Your task to perform on an android device: install app "Microsoft Excel" Image 0: 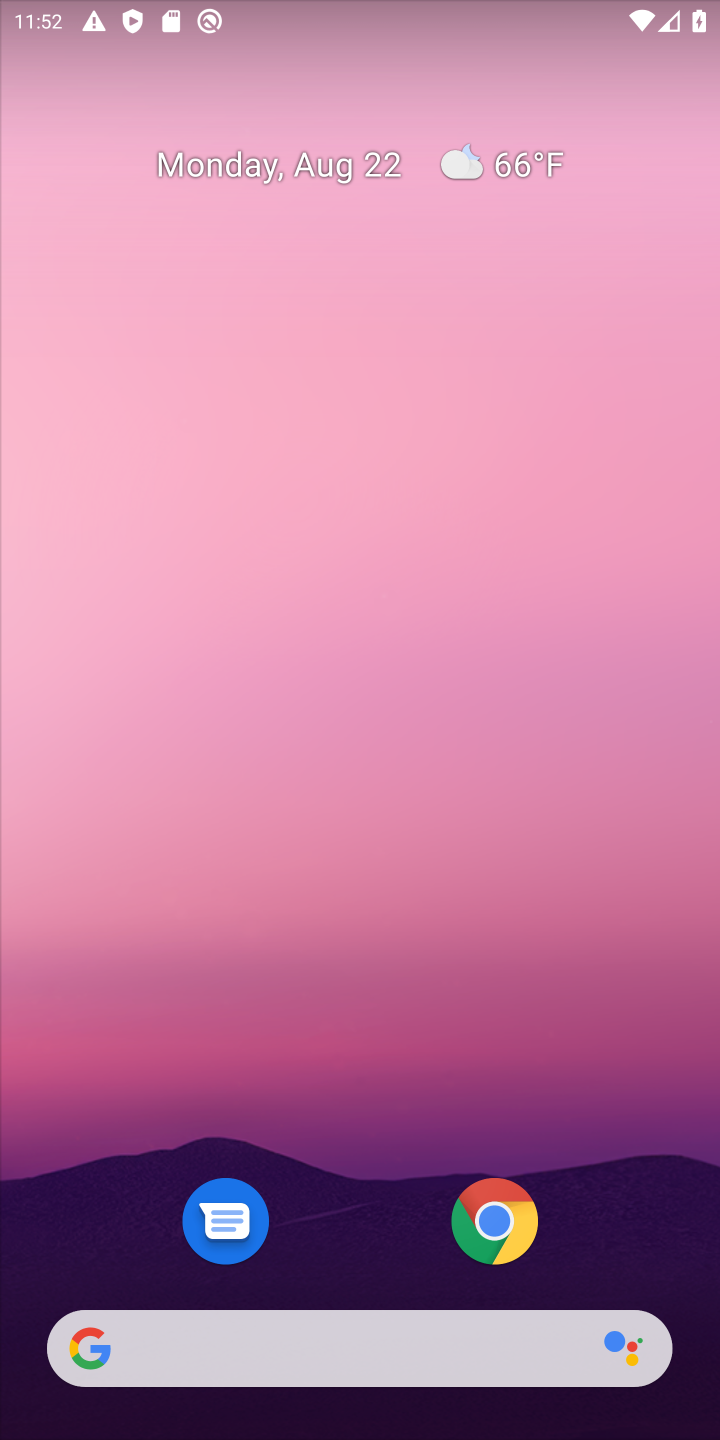
Step 0: drag from (338, 982) to (352, 236)
Your task to perform on an android device: install app "Microsoft Excel" Image 1: 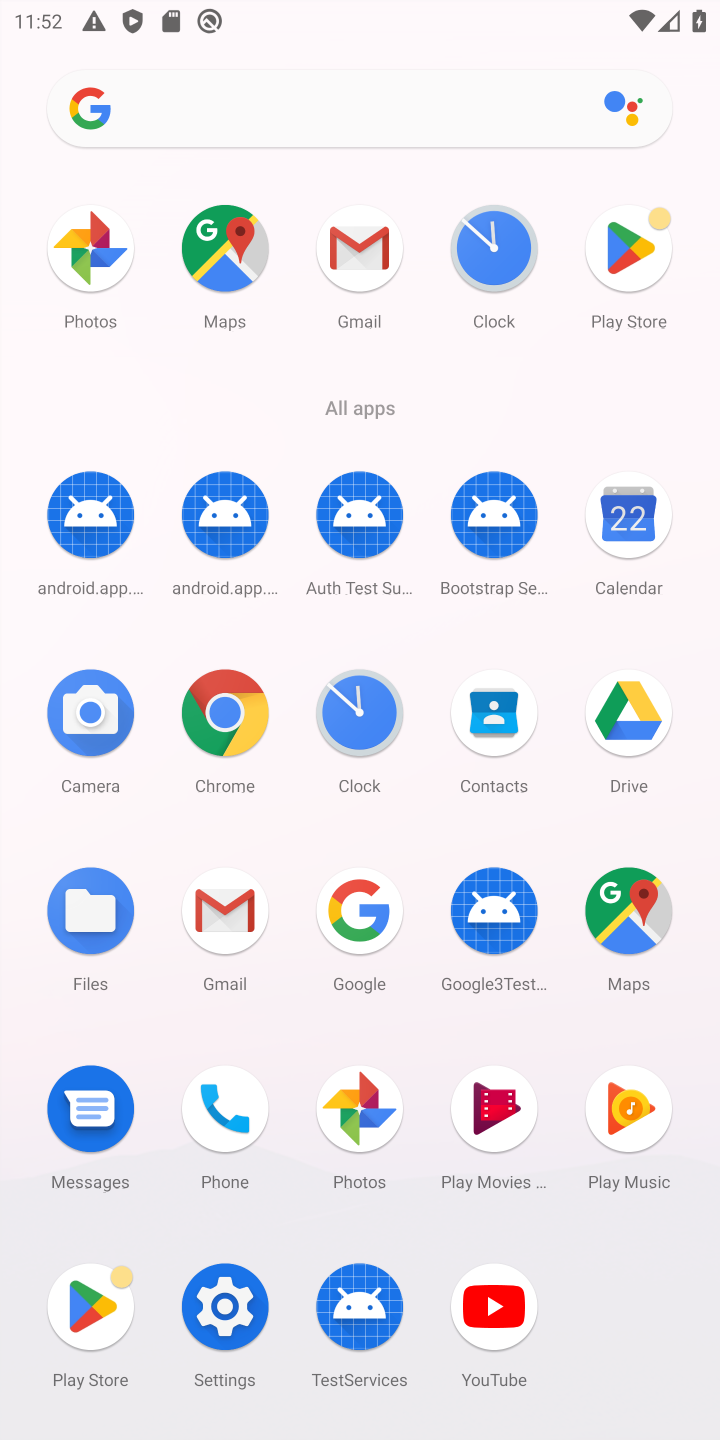
Step 1: click (587, 245)
Your task to perform on an android device: install app "Microsoft Excel" Image 2: 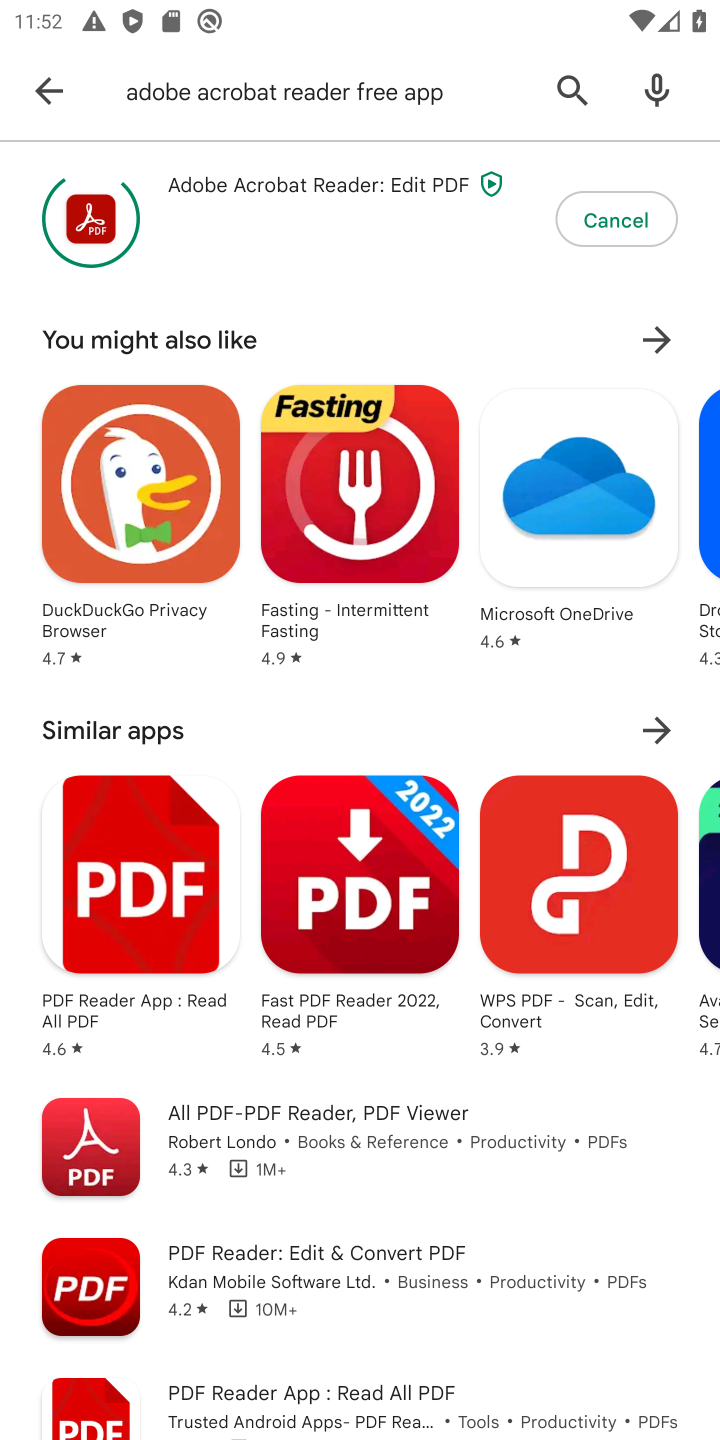
Step 2: click (556, 84)
Your task to perform on an android device: install app "Microsoft Excel" Image 3: 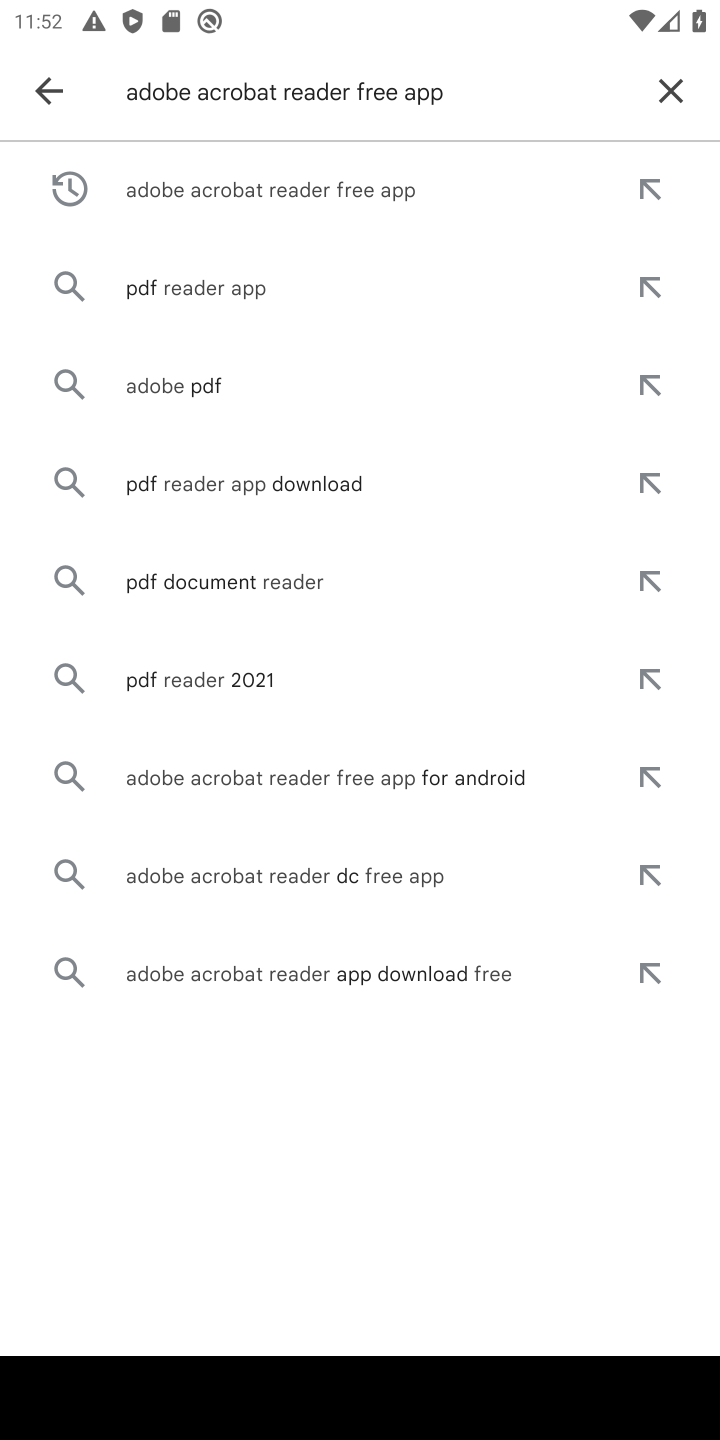
Step 3: click (661, 78)
Your task to perform on an android device: install app "Microsoft Excel" Image 4: 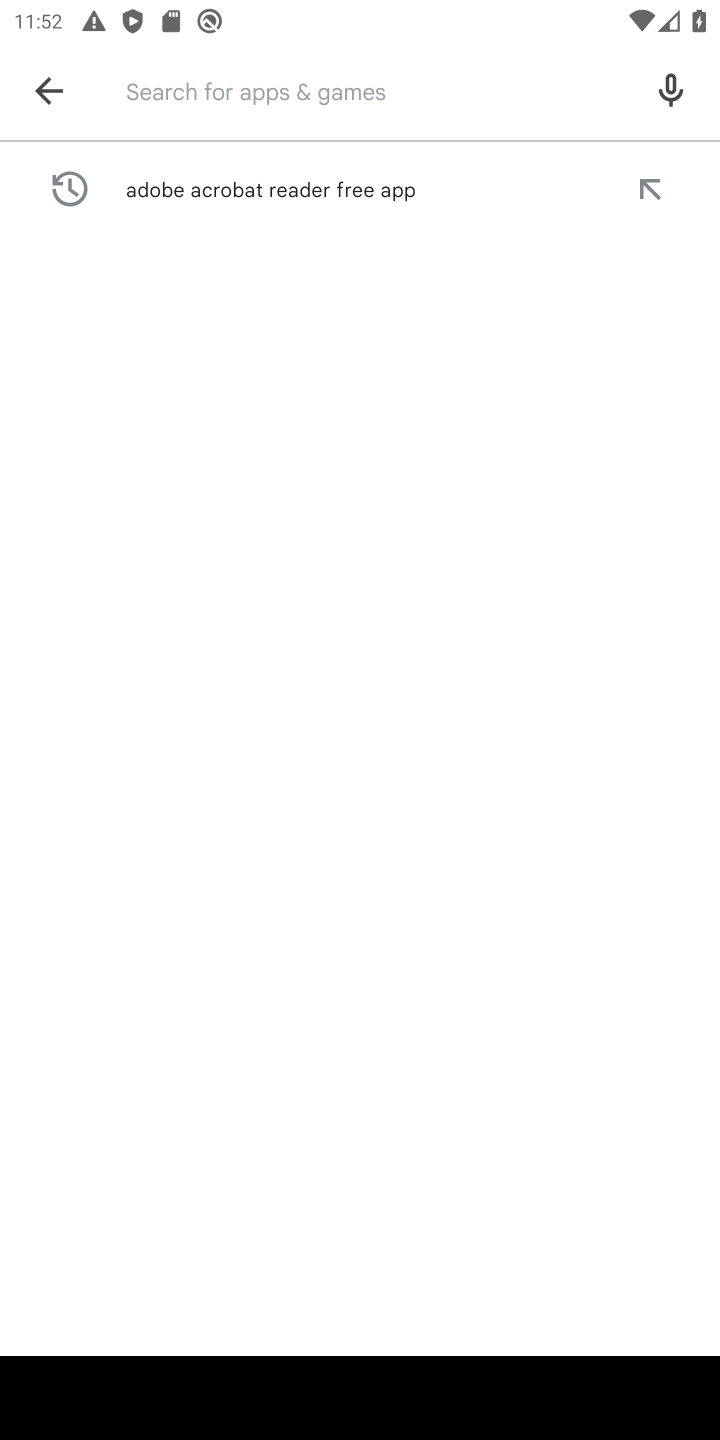
Step 4: click (235, 82)
Your task to perform on an android device: install app "Microsoft Excel" Image 5: 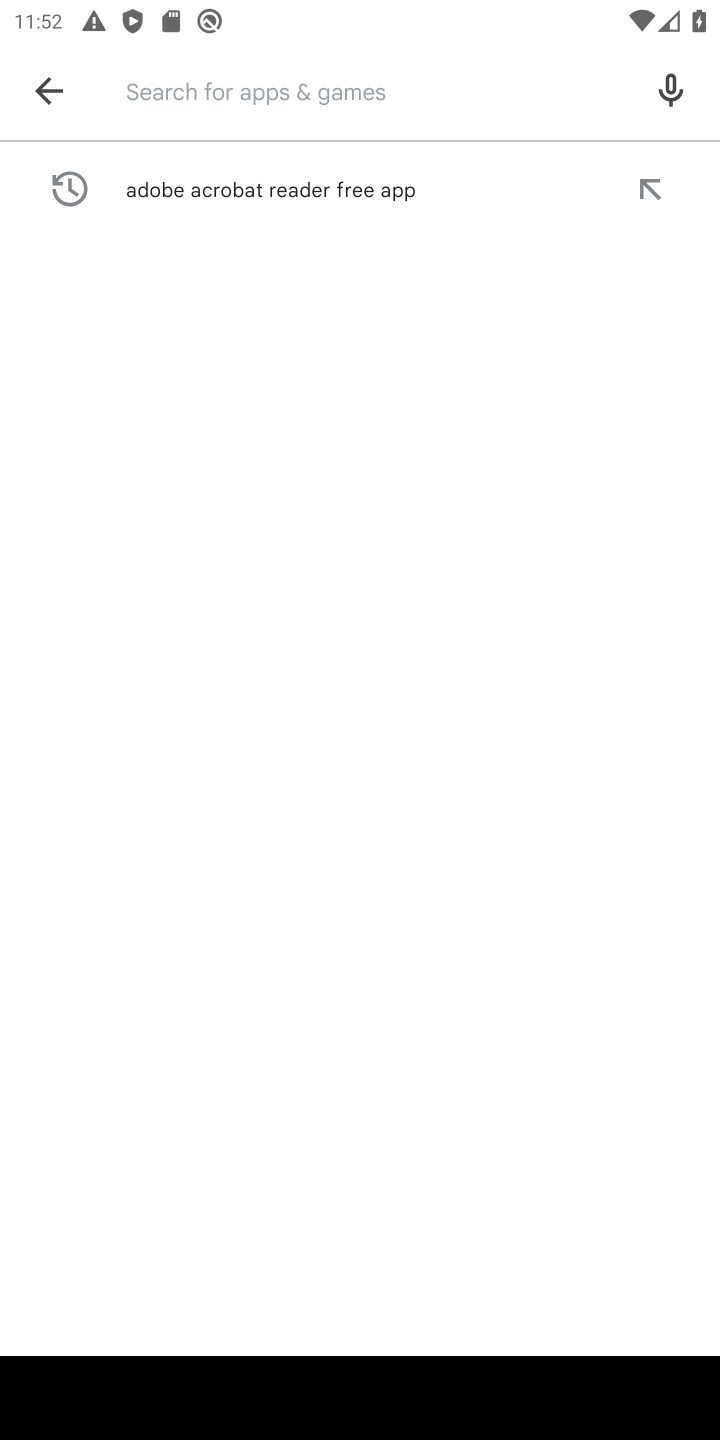
Step 5: click (275, 103)
Your task to perform on an android device: install app "Microsoft Excel" Image 6: 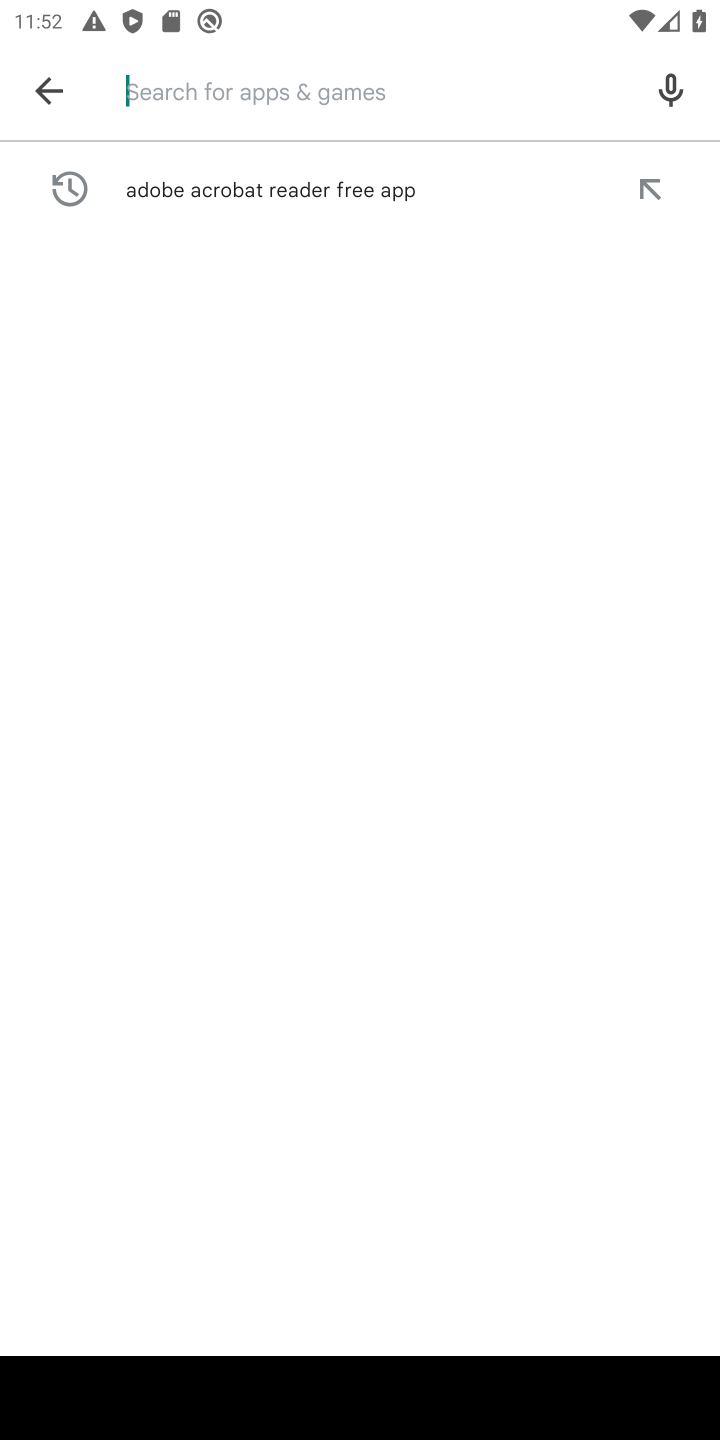
Step 6: type "Microsoft Excel"
Your task to perform on an android device: install app "Microsoft Excel" Image 7: 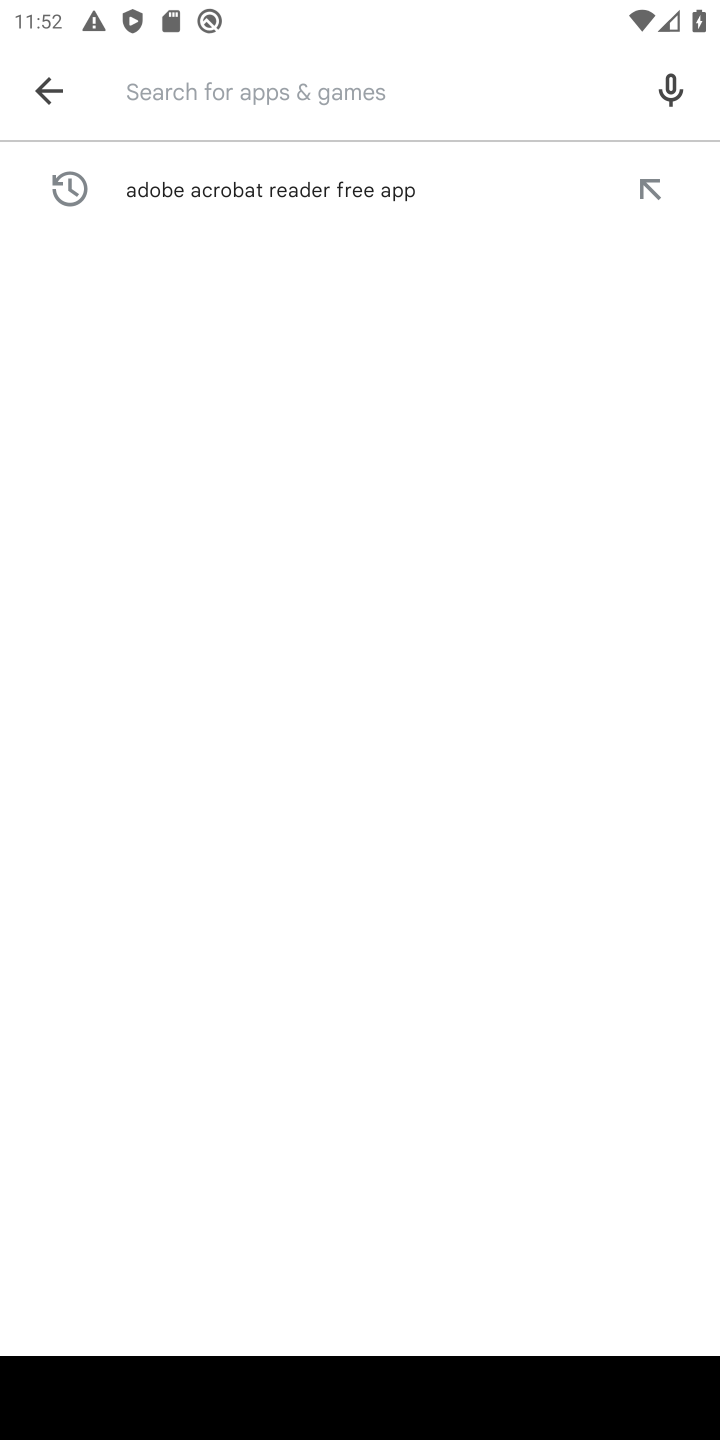
Step 7: click (381, 847)
Your task to perform on an android device: install app "Microsoft Excel" Image 8: 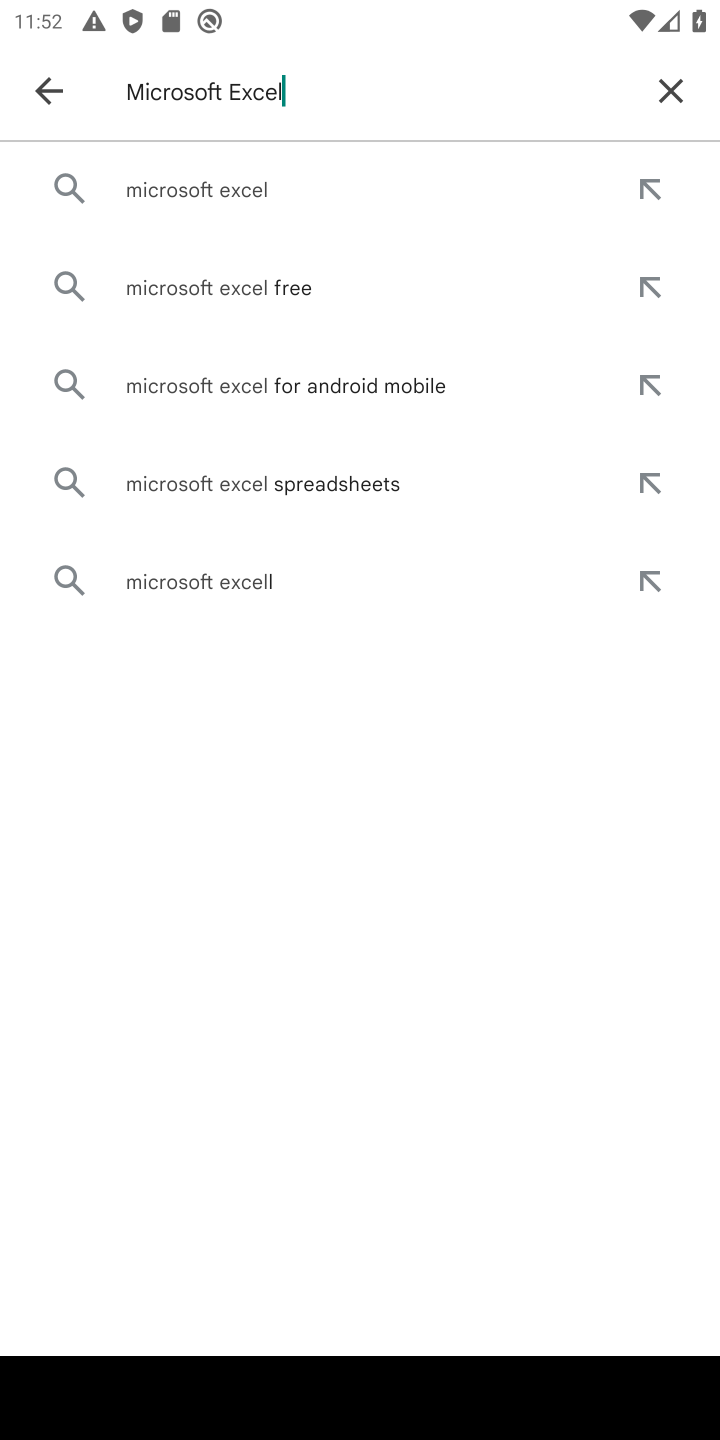
Step 8: click (235, 182)
Your task to perform on an android device: install app "Microsoft Excel" Image 9: 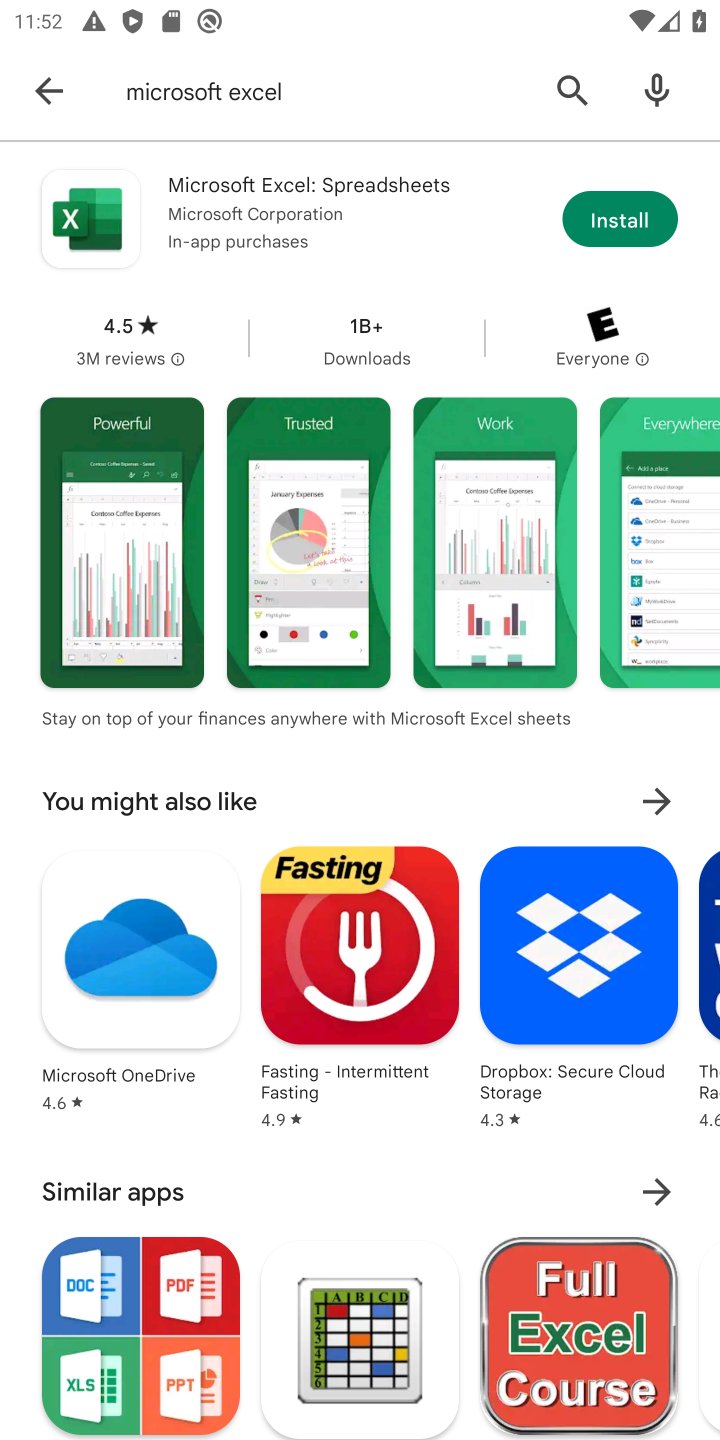
Step 9: click (602, 226)
Your task to perform on an android device: install app "Microsoft Excel" Image 10: 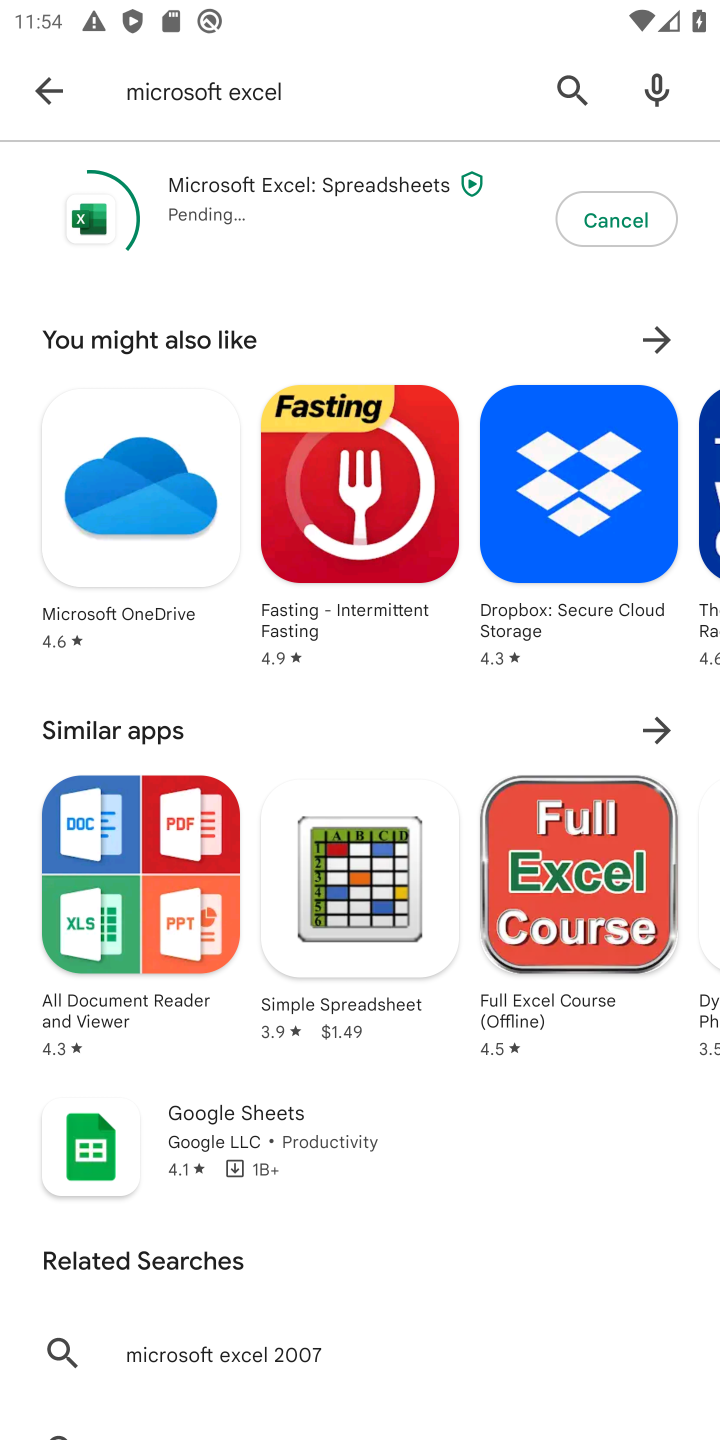
Step 10: press back button
Your task to perform on an android device: install app "Microsoft Excel" Image 11: 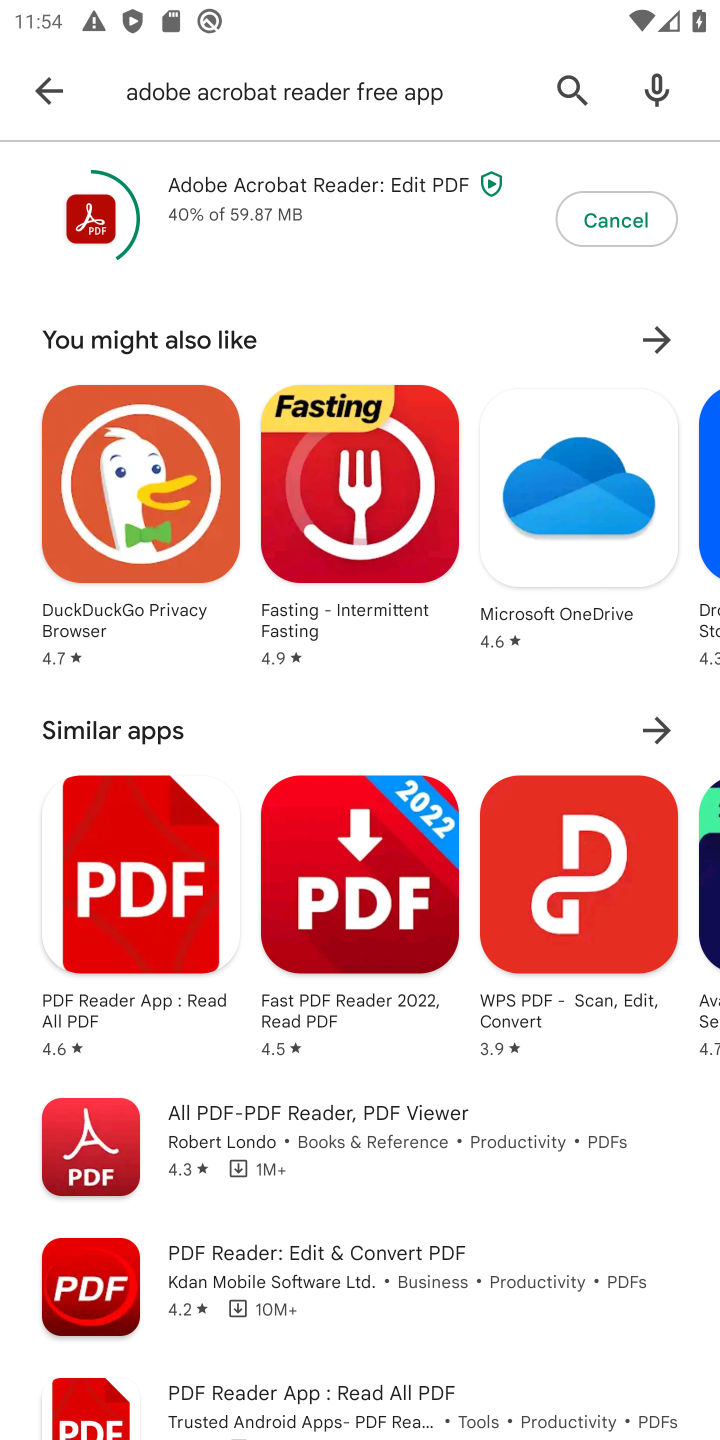
Step 11: click (614, 218)
Your task to perform on an android device: install app "Microsoft Excel" Image 12: 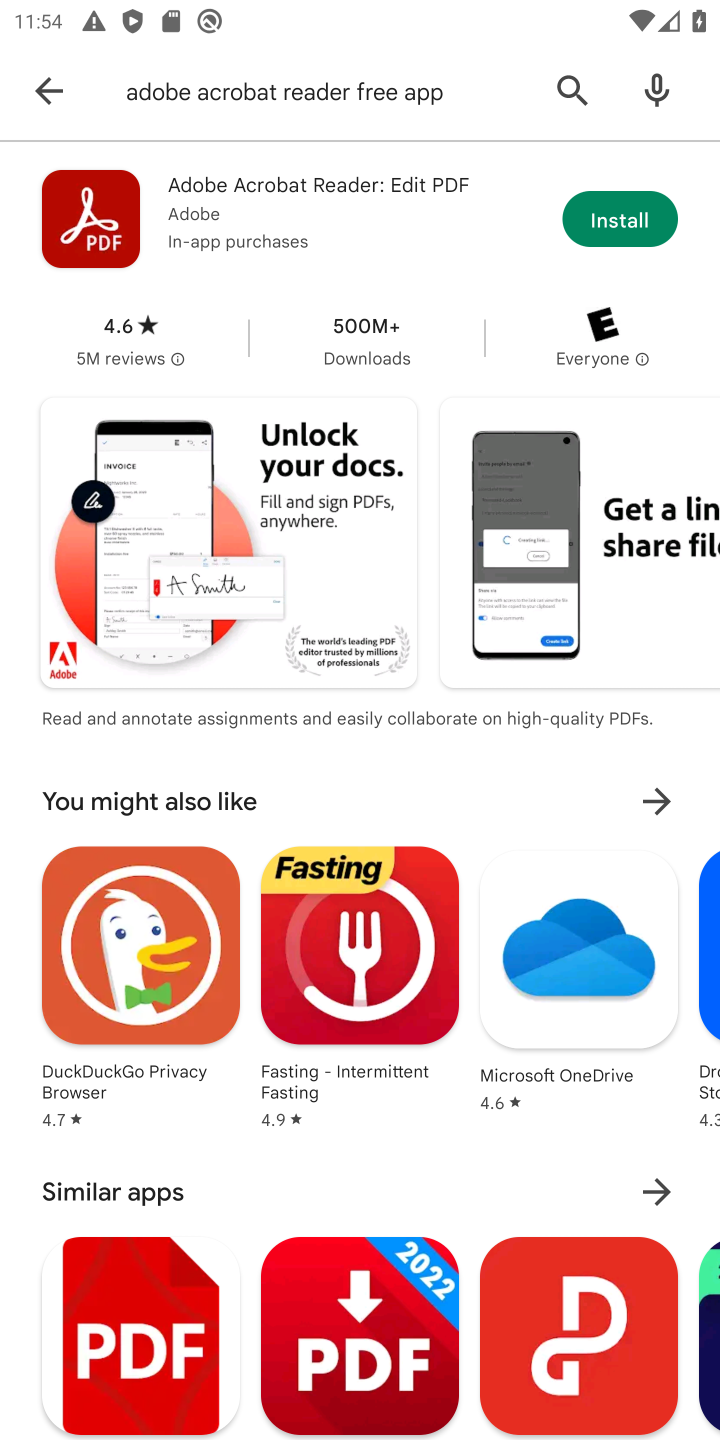
Step 12: click (568, 71)
Your task to perform on an android device: install app "Microsoft Excel" Image 13: 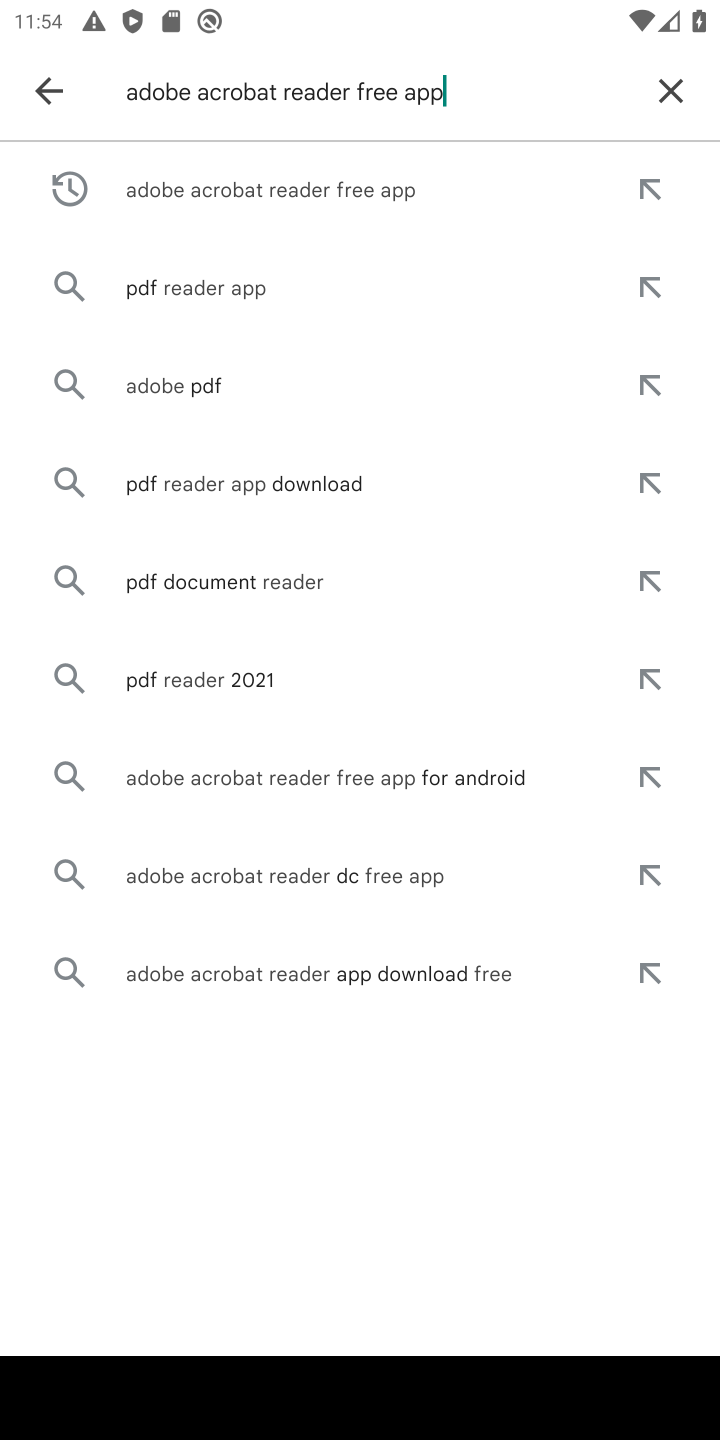
Step 13: click (666, 80)
Your task to perform on an android device: install app "Microsoft Excel" Image 14: 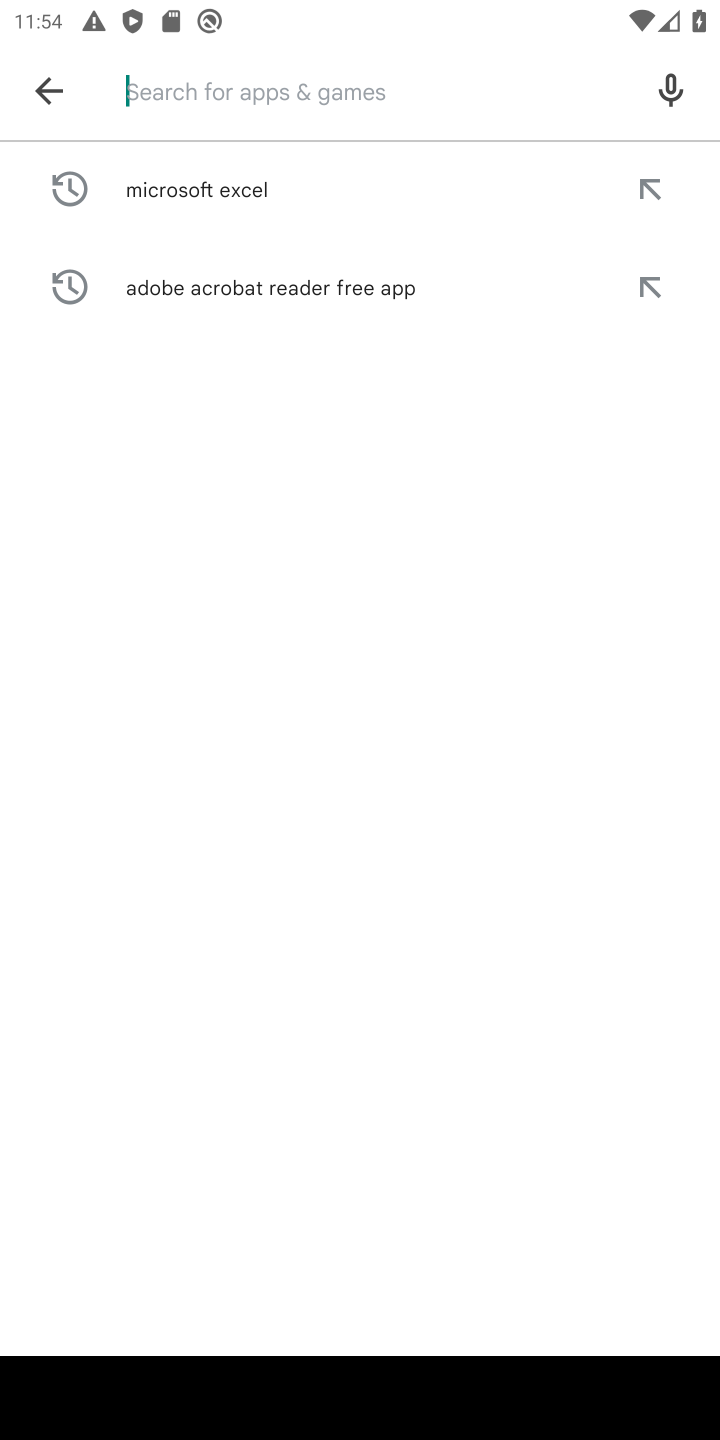
Step 14: click (222, 93)
Your task to perform on an android device: install app "Microsoft Excel" Image 15: 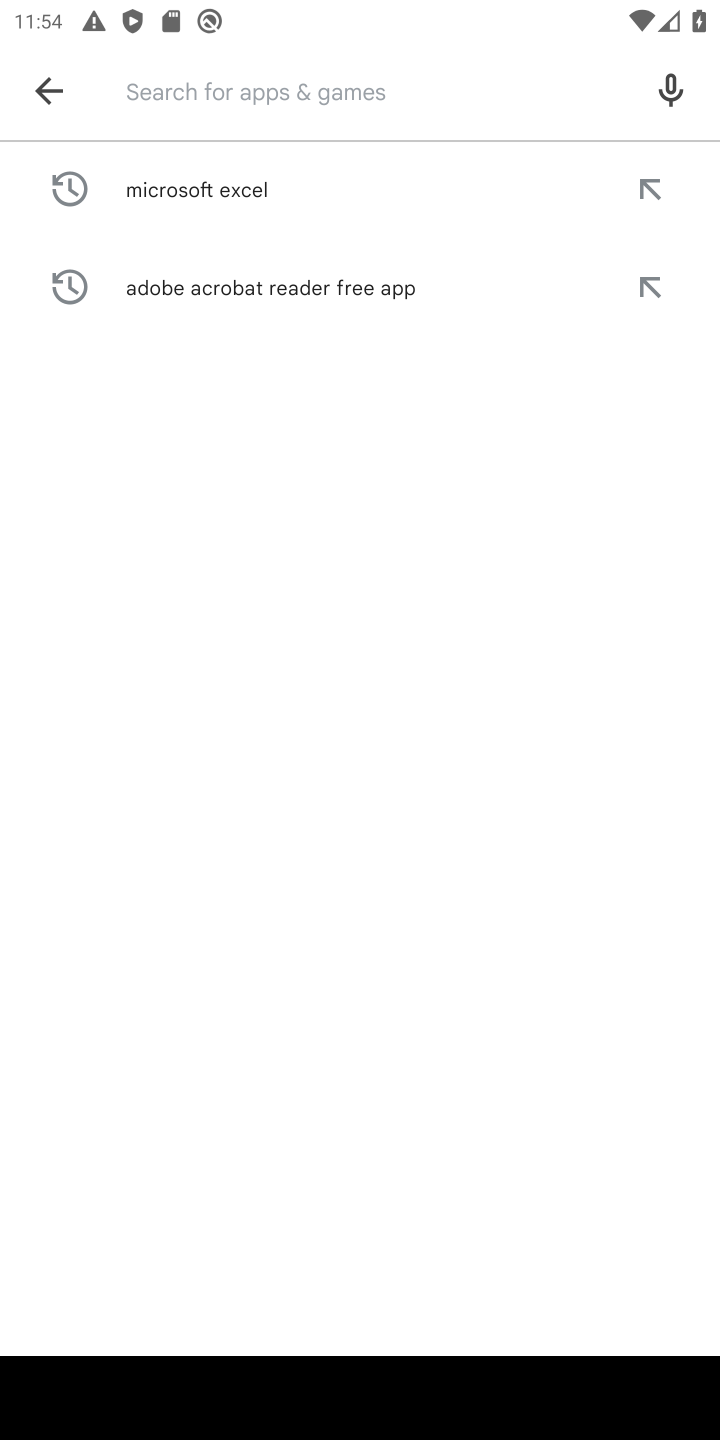
Step 15: type "Microsoft Excel"
Your task to perform on an android device: install app "Microsoft Excel" Image 16: 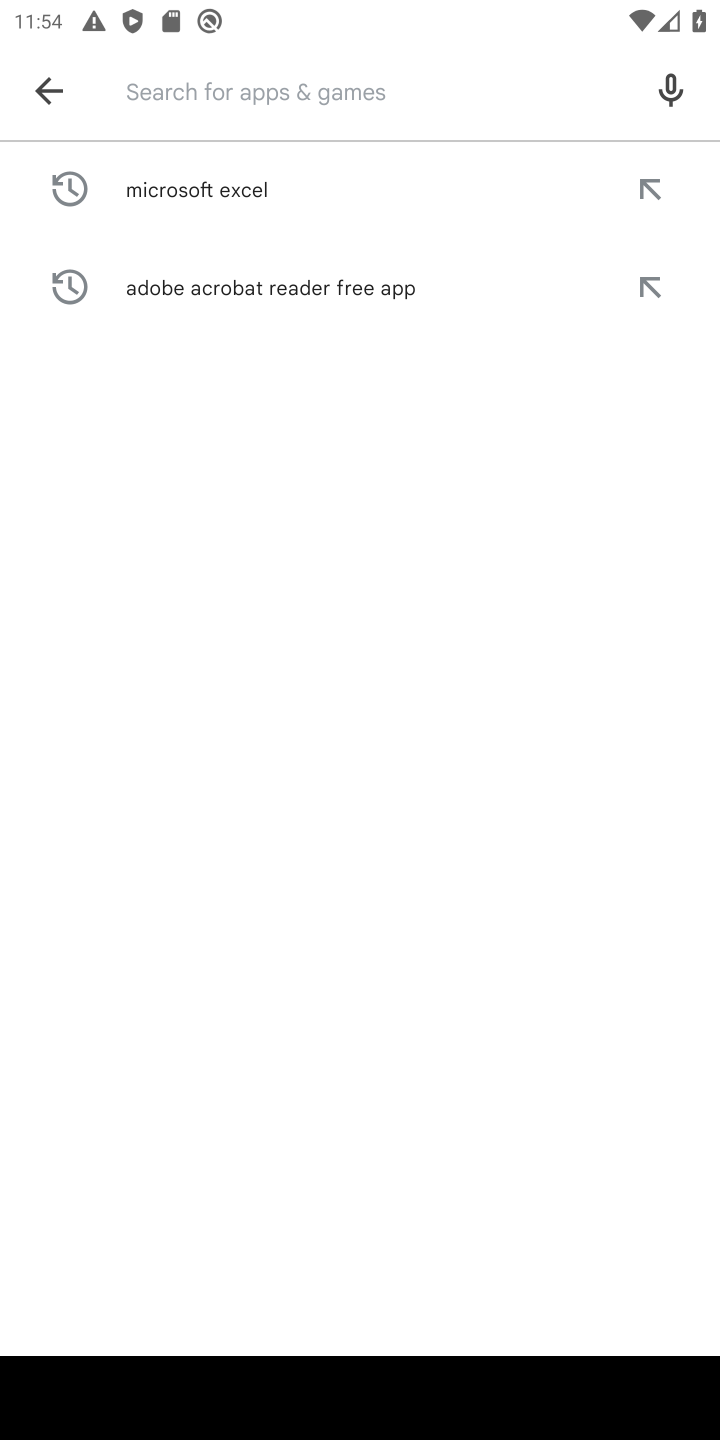
Step 16: click (497, 993)
Your task to perform on an android device: install app "Microsoft Excel" Image 17: 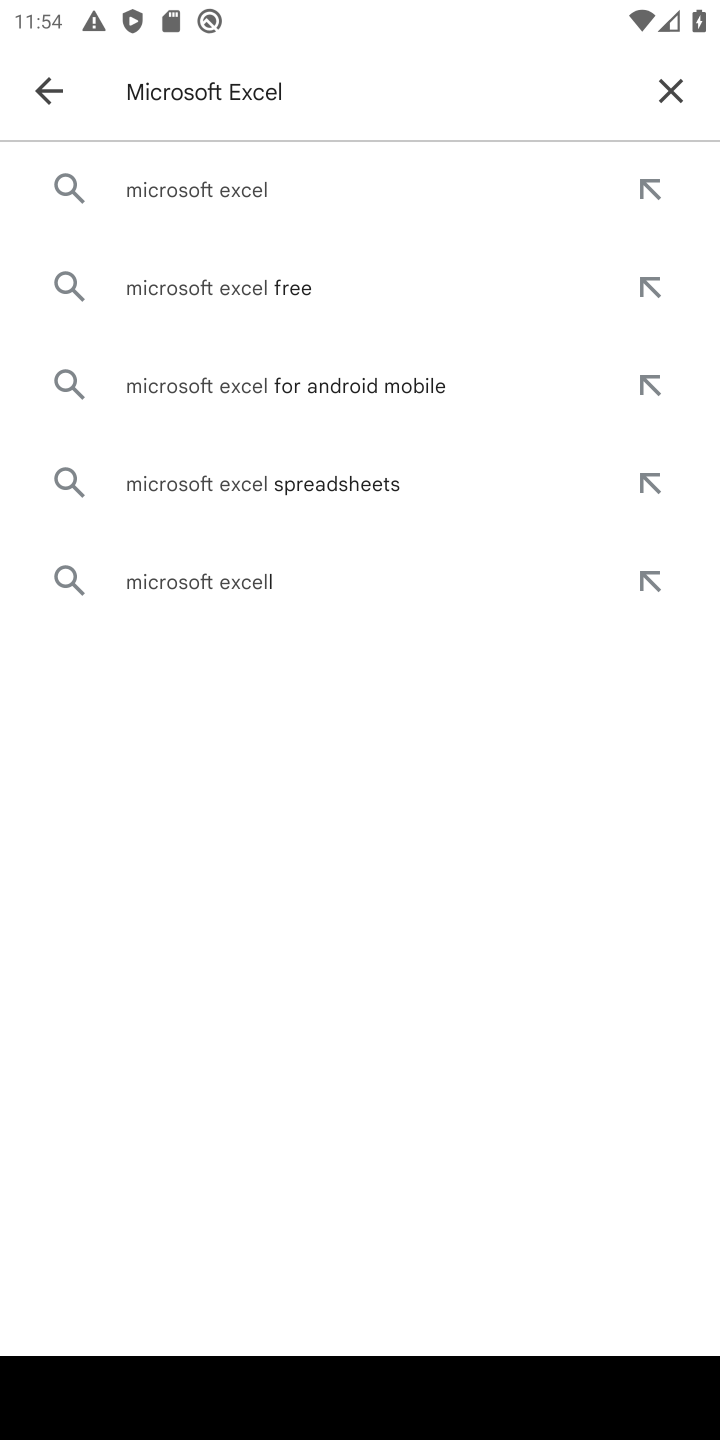
Step 17: click (239, 177)
Your task to perform on an android device: install app "Microsoft Excel" Image 18: 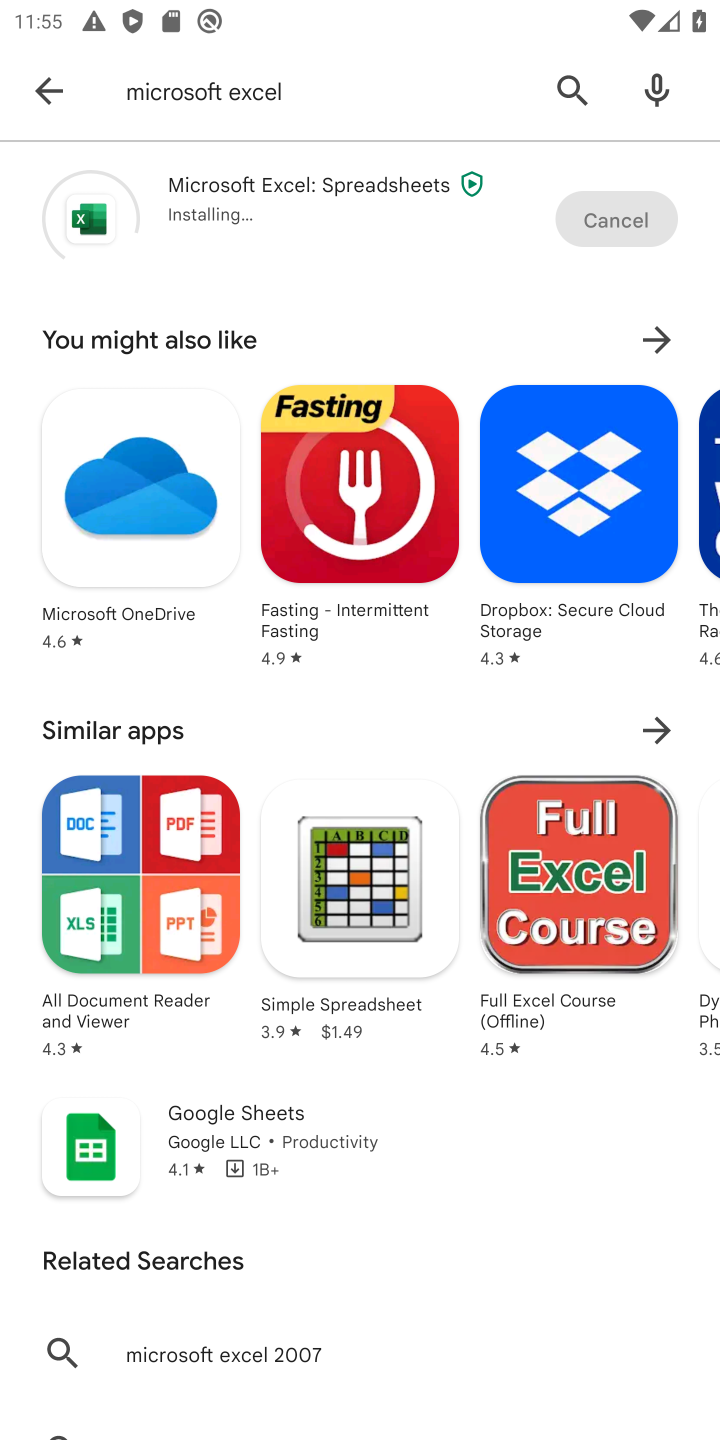
Step 18: click (263, 194)
Your task to perform on an android device: install app "Microsoft Excel" Image 19: 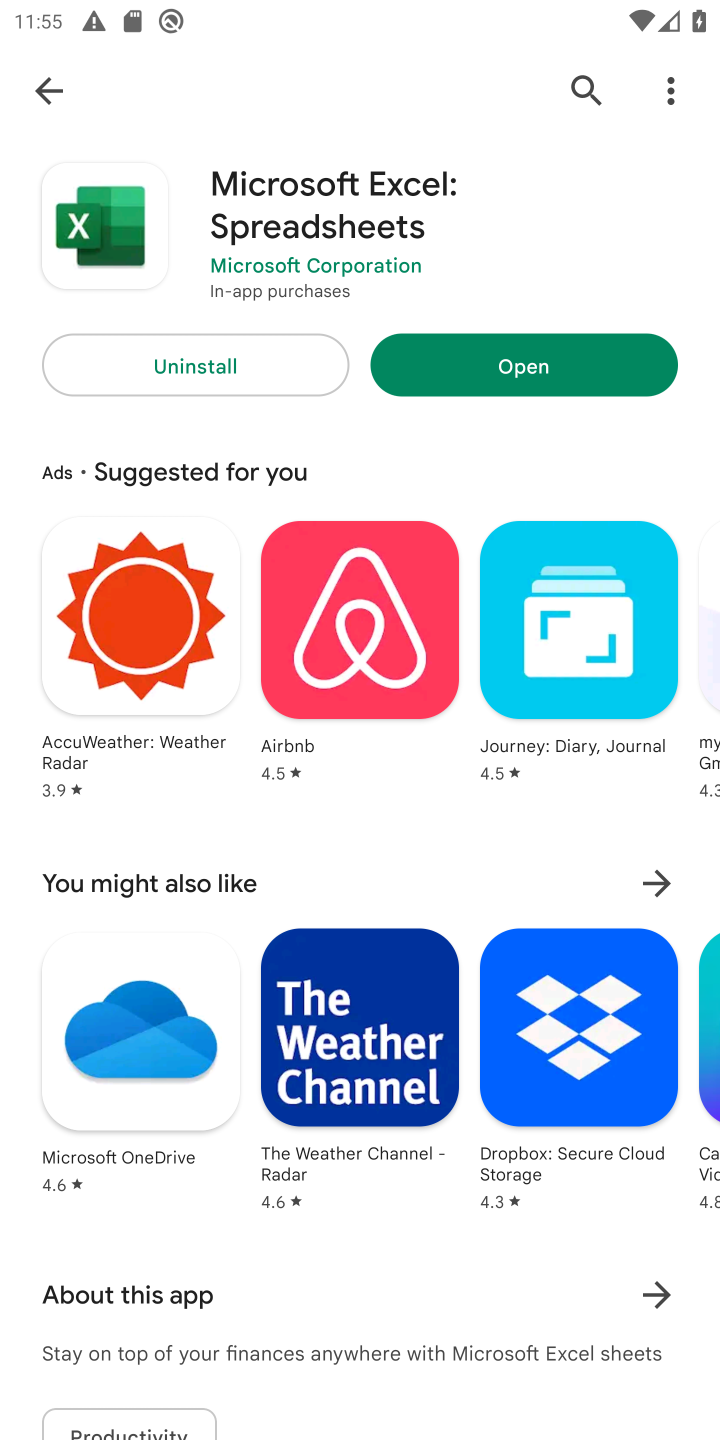
Step 19: task complete